Your task to perform on an android device: open chrome privacy settings Image 0: 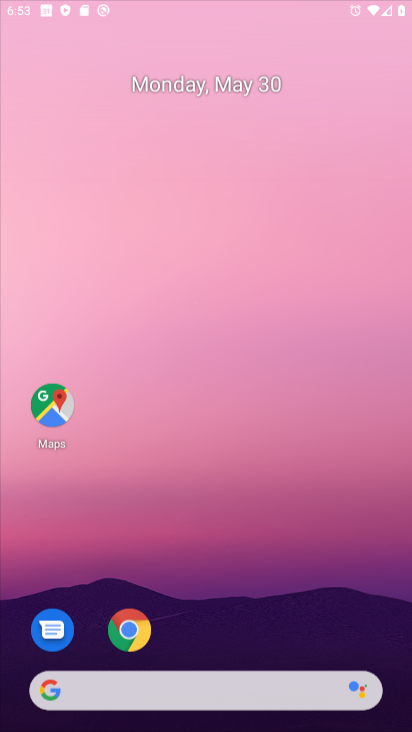
Step 0: drag from (321, 615) to (239, 34)
Your task to perform on an android device: open chrome privacy settings Image 1: 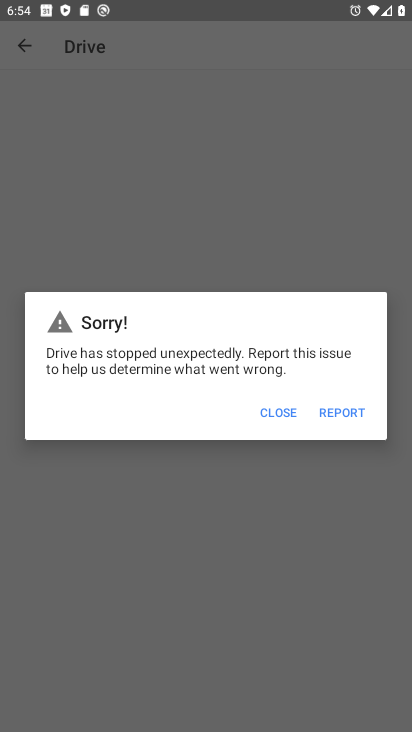
Step 1: press home button
Your task to perform on an android device: open chrome privacy settings Image 2: 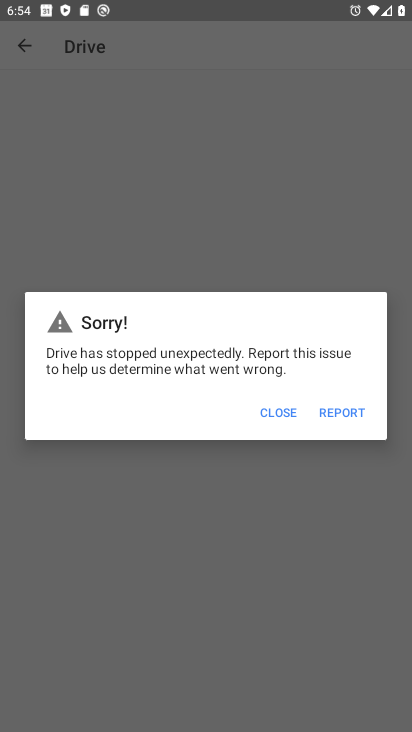
Step 2: drag from (246, 656) to (184, 61)
Your task to perform on an android device: open chrome privacy settings Image 3: 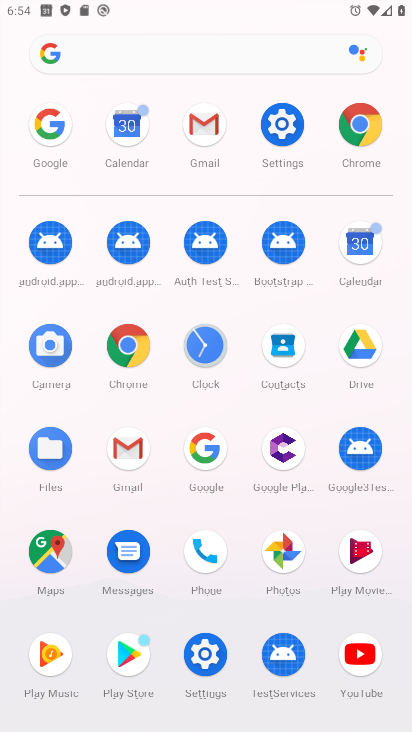
Step 3: click (348, 120)
Your task to perform on an android device: open chrome privacy settings Image 4: 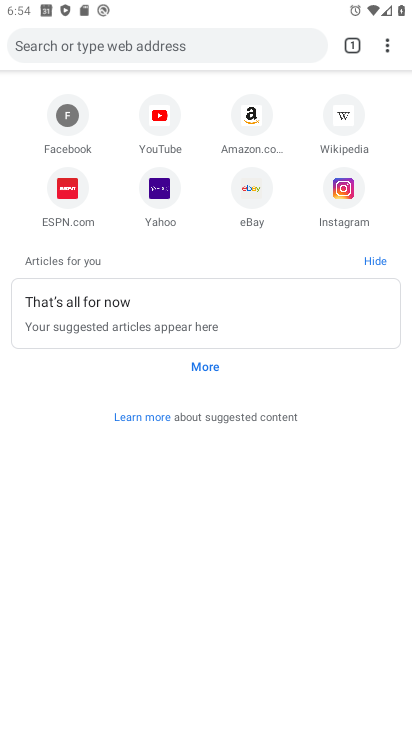
Step 4: click (388, 42)
Your task to perform on an android device: open chrome privacy settings Image 5: 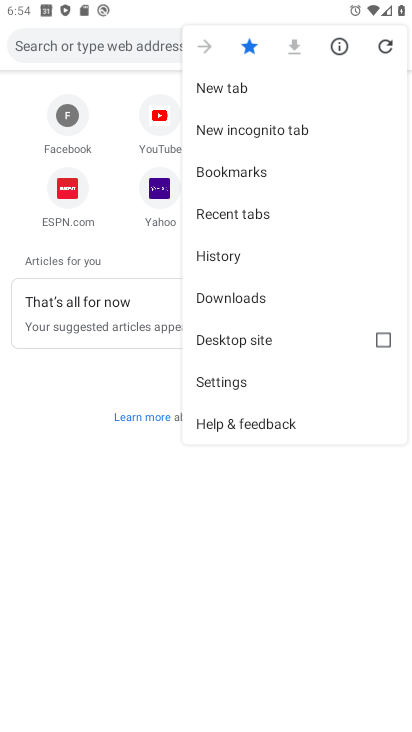
Step 5: click (259, 374)
Your task to perform on an android device: open chrome privacy settings Image 6: 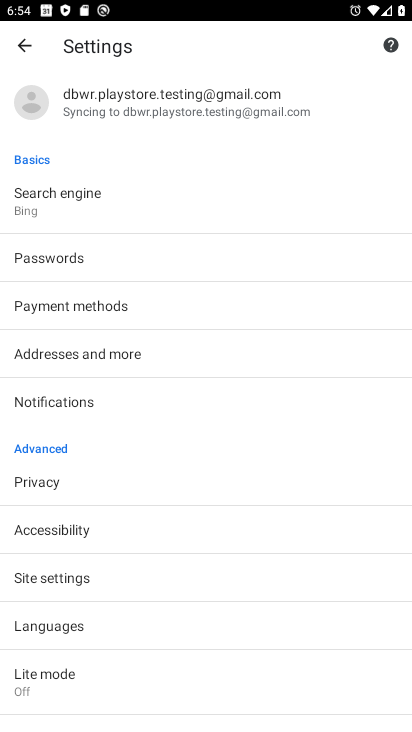
Step 6: click (56, 484)
Your task to perform on an android device: open chrome privacy settings Image 7: 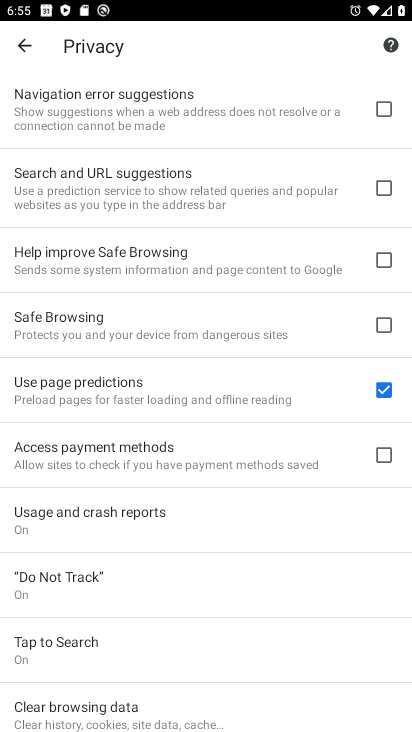
Step 7: task complete